Your task to perform on an android device: check the backup settings in the google photos Image 0: 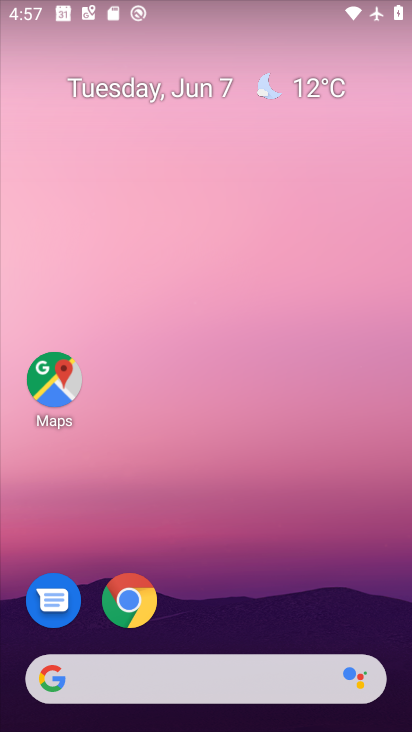
Step 0: drag from (311, 570) to (279, 160)
Your task to perform on an android device: check the backup settings in the google photos Image 1: 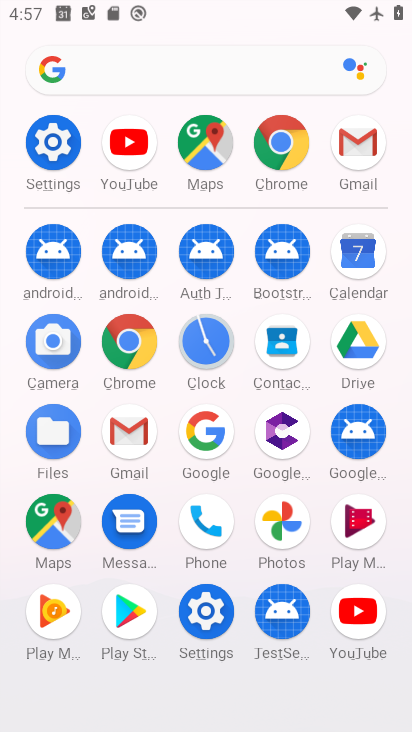
Step 1: click (282, 505)
Your task to perform on an android device: check the backup settings in the google photos Image 2: 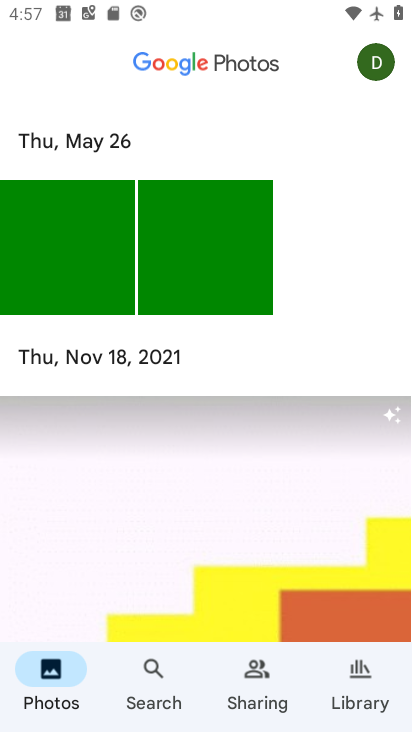
Step 2: click (379, 49)
Your task to perform on an android device: check the backup settings in the google photos Image 3: 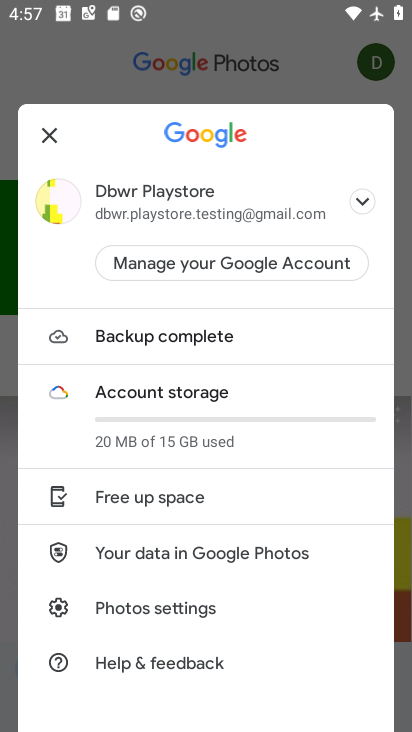
Step 3: drag from (268, 643) to (314, 192)
Your task to perform on an android device: check the backup settings in the google photos Image 4: 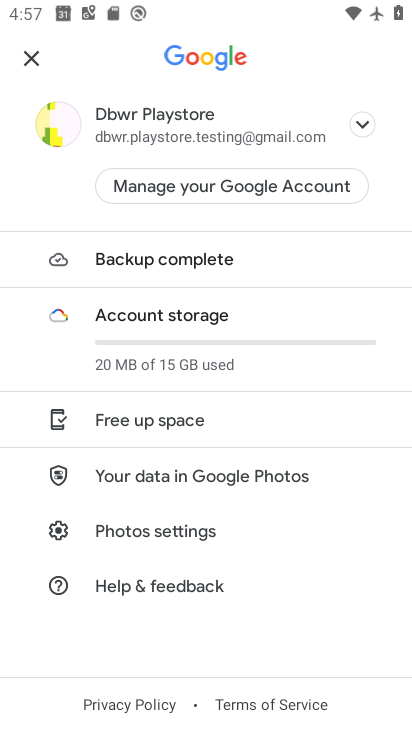
Step 4: click (183, 538)
Your task to perform on an android device: check the backup settings in the google photos Image 5: 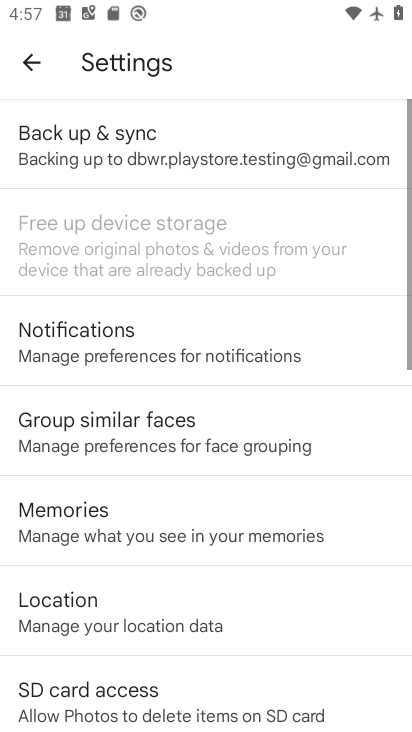
Step 5: click (218, 163)
Your task to perform on an android device: check the backup settings in the google photos Image 6: 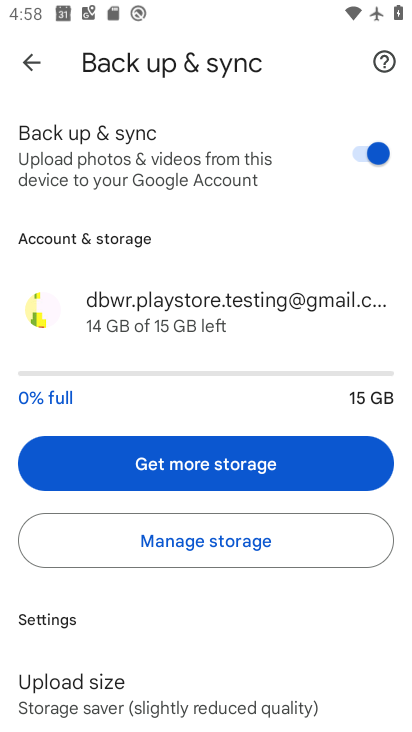
Step 6: task complete